Your task to perform on an android device: What's the weather going to be tomorrow? Image 0: 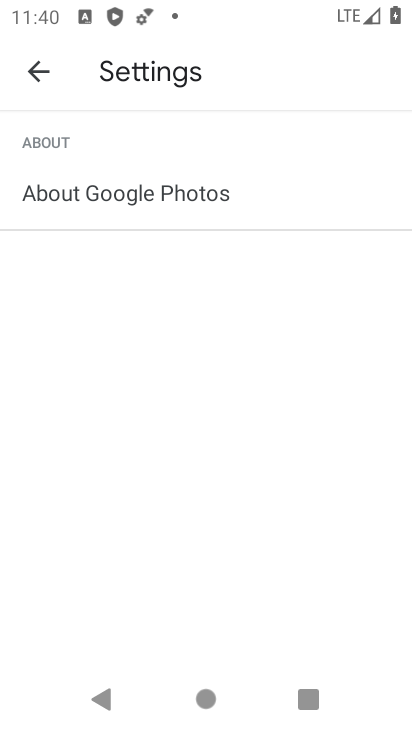
Step 0: press home button
Your task to perform on an android device: What's the weather going to be tomorrow? Image 1: 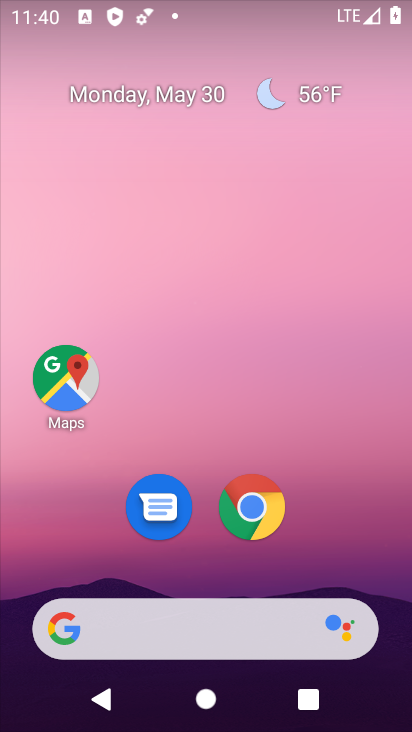
Step 1: drag from (398, 651) to (305, 78)
Your task to perform on an android device: What's the weather going to be tomorrow? Image 2: 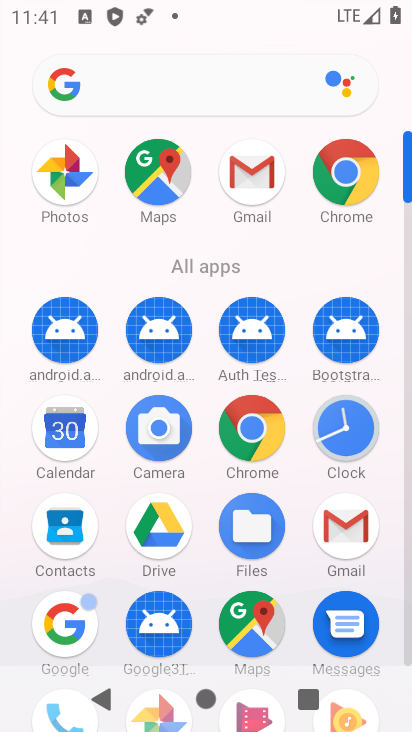
Step 2: click (71, 609)
Your task to perform on an android device: What's the weather going to be tomorrow? Image 3: 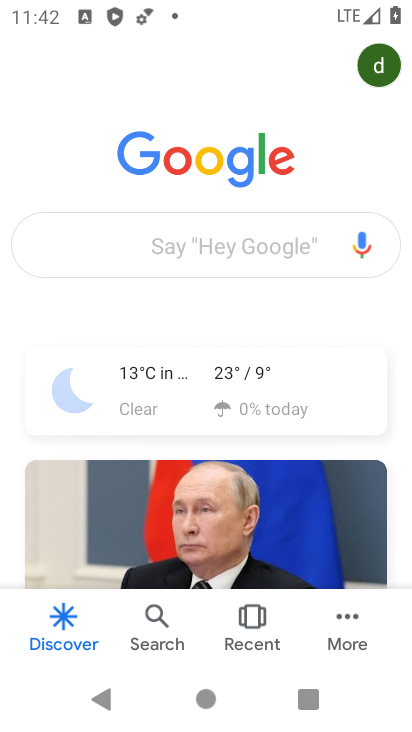
Step 3: click (165, 224)
Your task to perform on an android device: What's the weather going to be tomorrow? Image 4: 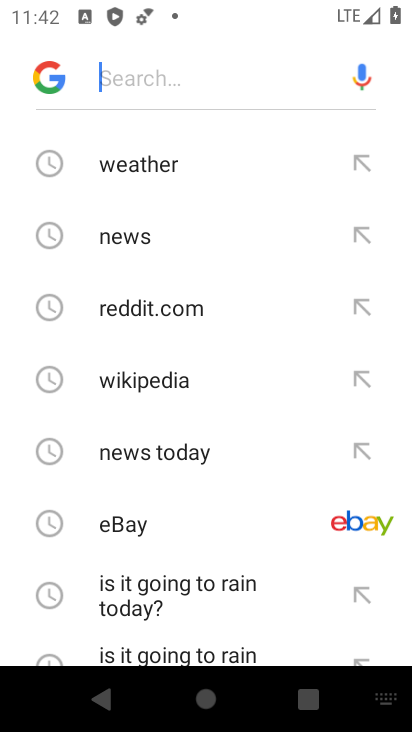
Step 4: drag from (244, 593) to (283, 150)
Your task to perform on an android device: What's the weather going to be tomorrow? Image 5: 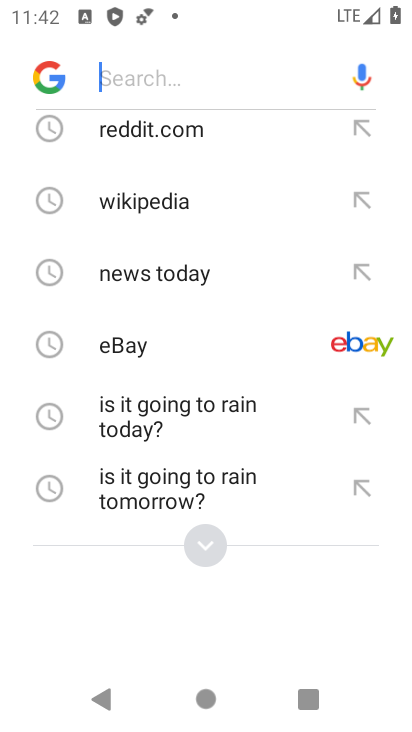
Step 5: click (199, 544)
Your task to perform on an android device: What's the weather going to be tomorrow? Image 6: 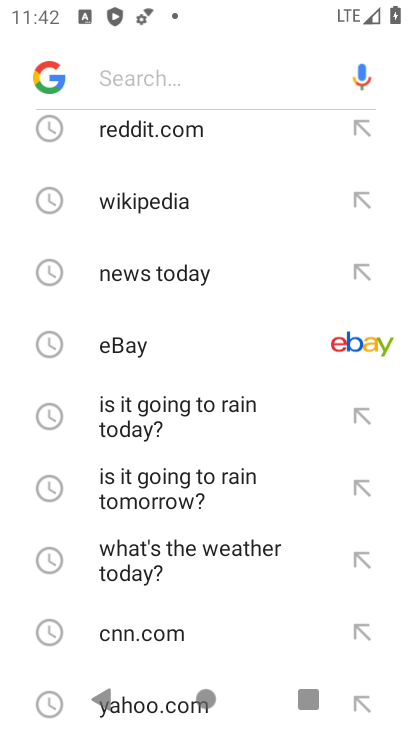
Step 6: drag from (224, 606) to (275, 259)
Your task to perform on an android device: What's the weather going to be tomorrow? Image 7: 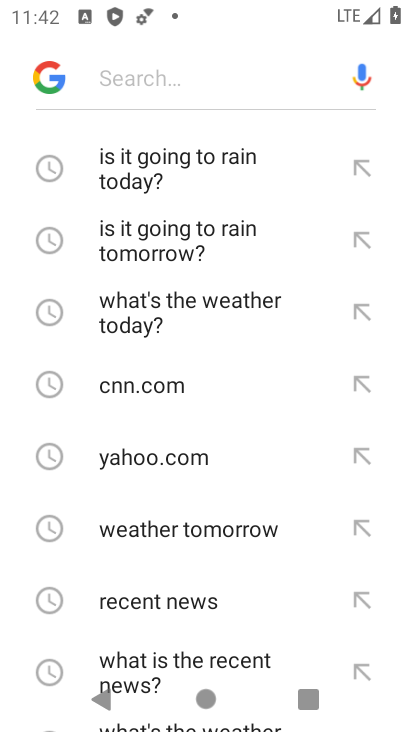
Step 7: drag from (221, 620) to (277, 106)
Your task to perform on an android device: What's the weather going to be tomorrow? Image 8: 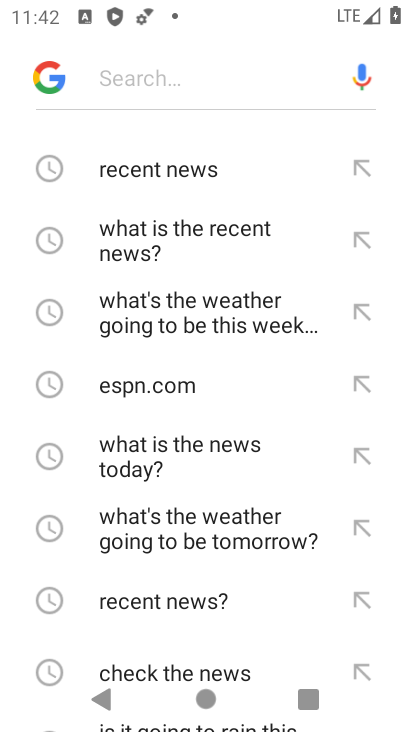
Step 8: click (226, 530)
Your task to perform on an android device: What's the weather going to be tomorrow? Image 9: 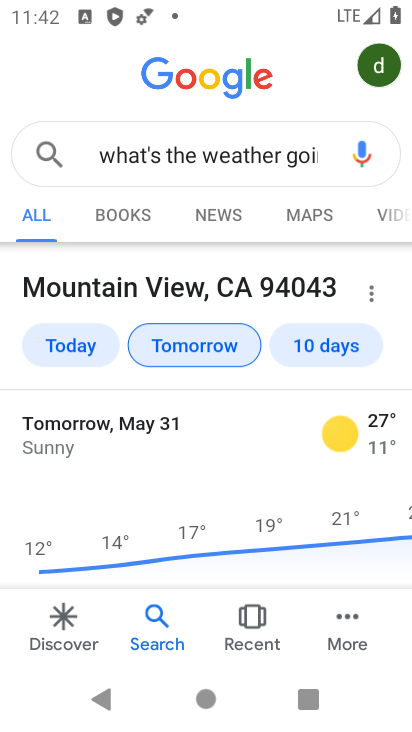
Step 9: task complete